Your task to perform on an android device: Open Google Chrome Image 0: 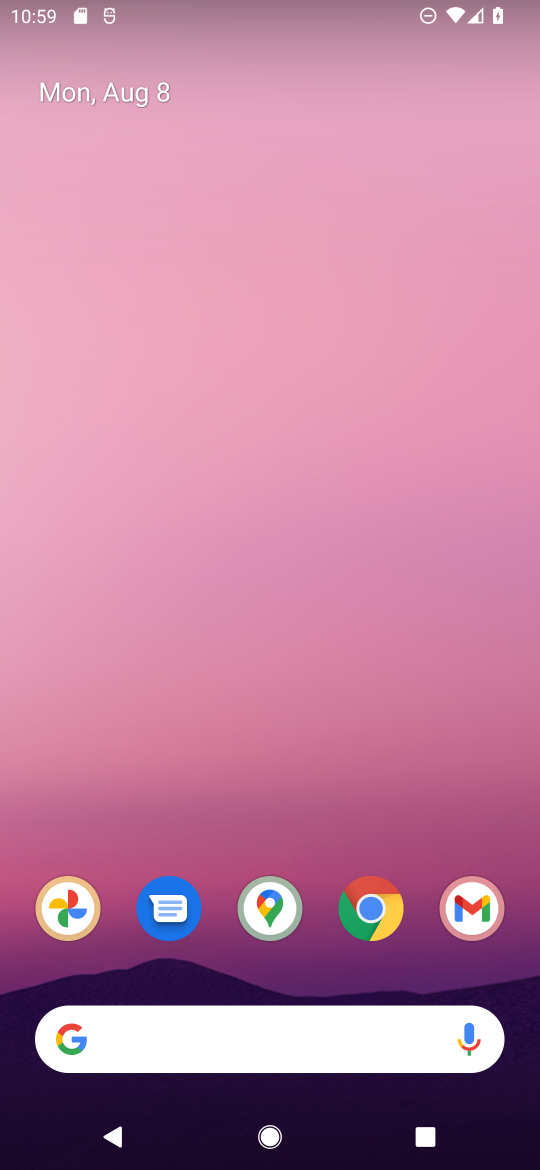
Step 0: press home button
Your task to perform on an android device: Open Google Chrome Image 1: 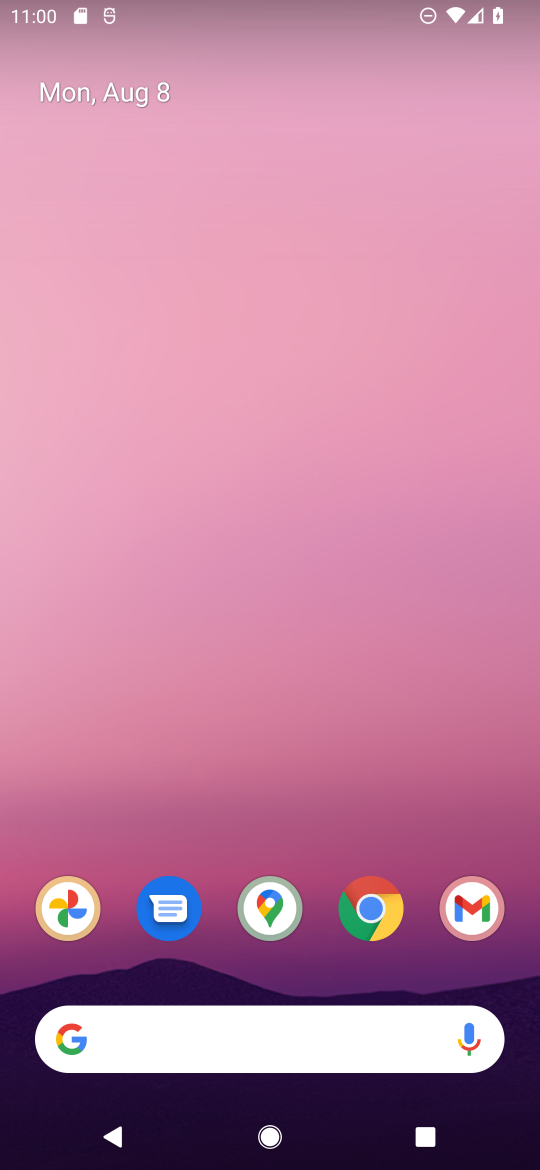
Step 1: press home button
Your task to perform on an android device: Open Google Chrome Image 2: 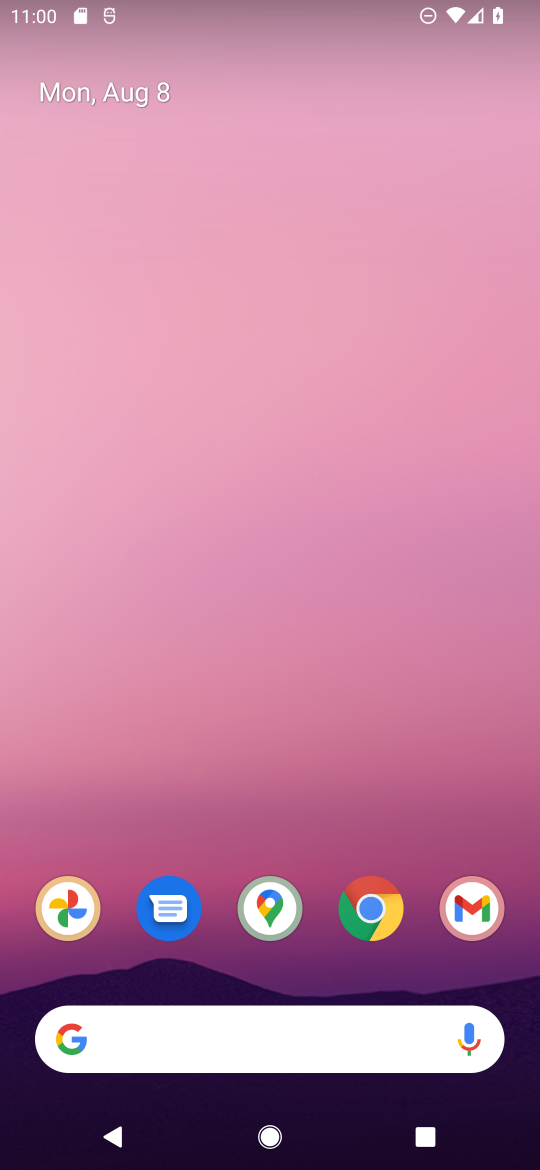
Step 2: click (373, 903)
Your task to perform on an android device: Open Google Chrome Image 3: 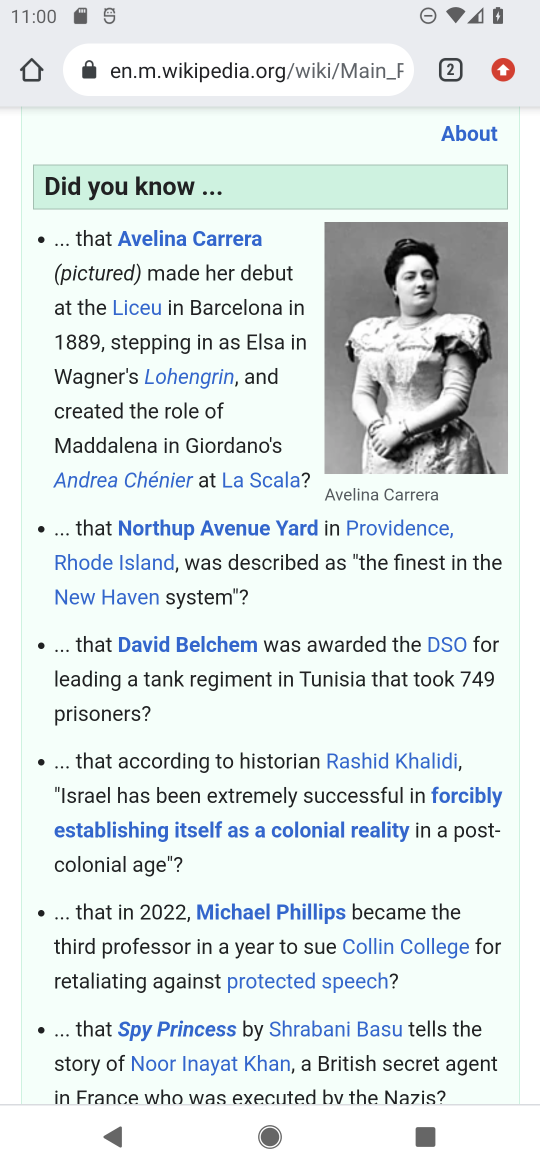
Step 3: click (445, 61)
Your task to perform on an android device: Open Google Chrome Image 4: 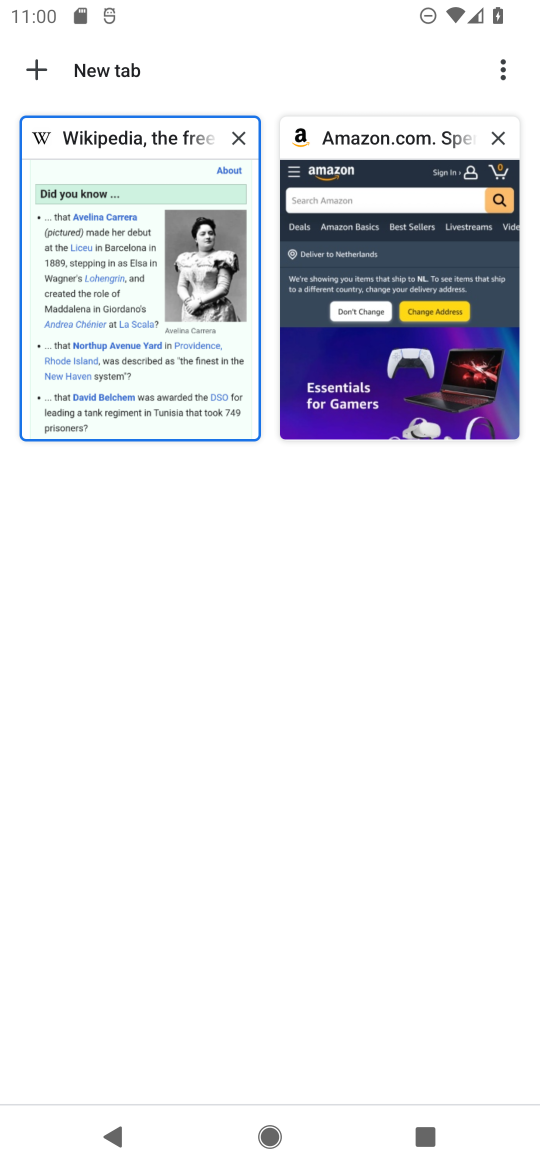
Step 4: click (36, 72)
Your task to perform on an android device: Open Google Chrome Image 5: 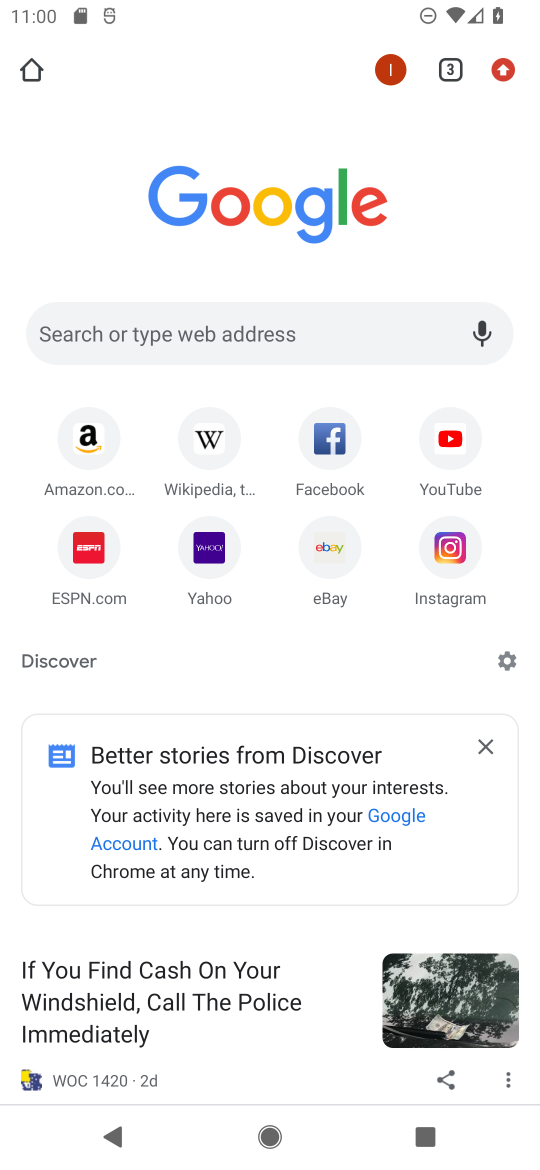
Step 5: task complete